Your task to perform on an android device: Open Yahoo.com Image 0: 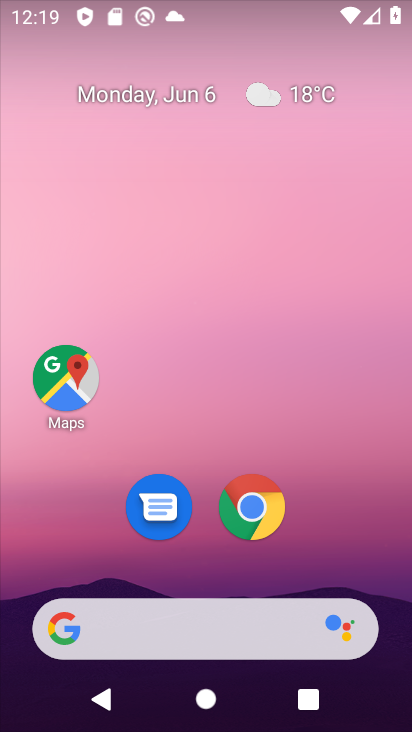
Step 0: click (245, 498)
Your task to perform on an android device: Open Yahoo.com Image 1: 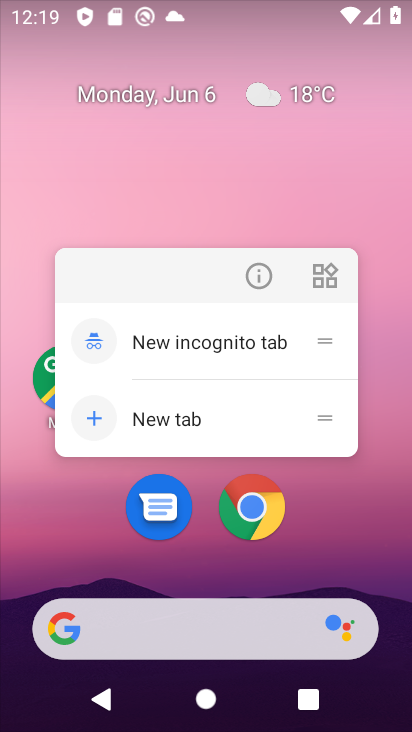
Step 1: click (258, 505)
Your task to perform on an android device: Open Yahoo.com Image 2: 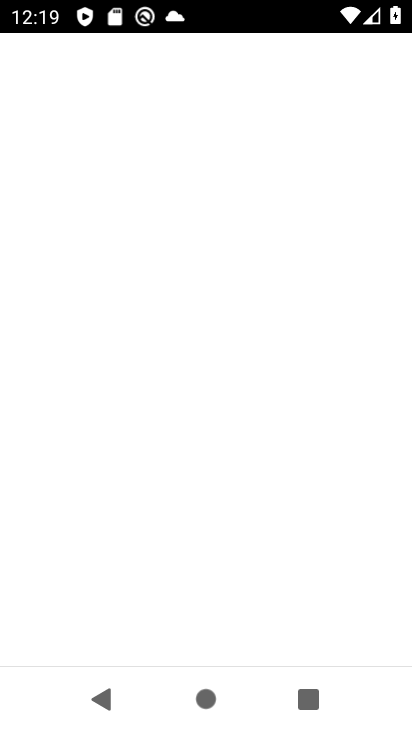
Step 2: click (258, 505)
Your task to perform on an android device: Open Yahoo.com Image 3: 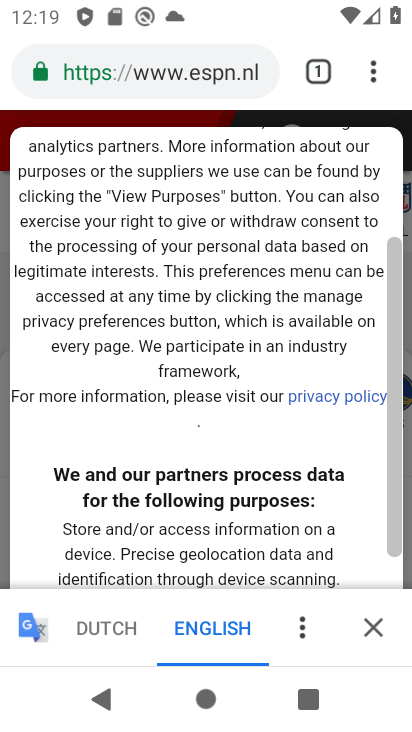
Step 3: click (208, 65)
Your task to perform on an android device: Open Yahoo.com Image 4: 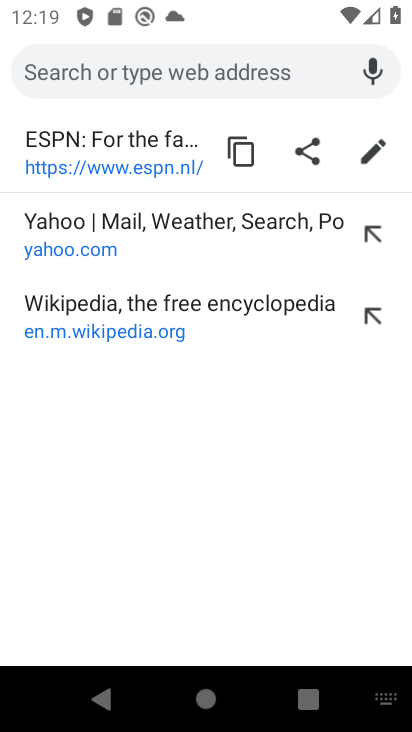
Step 4: type "yahoo.com"
Your task to perform on an android device: Open Yahoo.com Image 5: 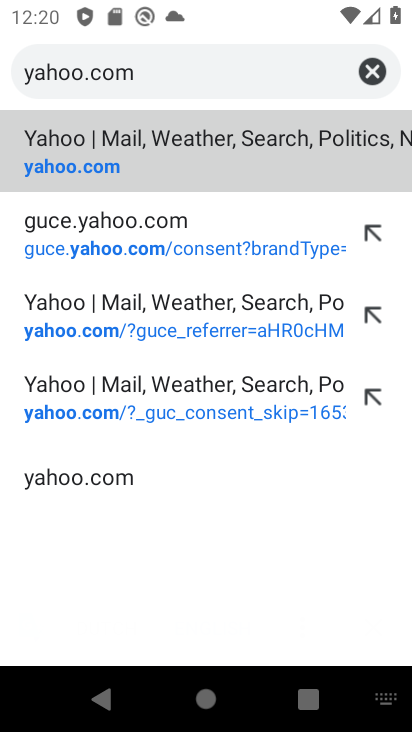
Step 5: click (111, 165)
Your task to perform on an android device: Open Yahoo.com Image 6: 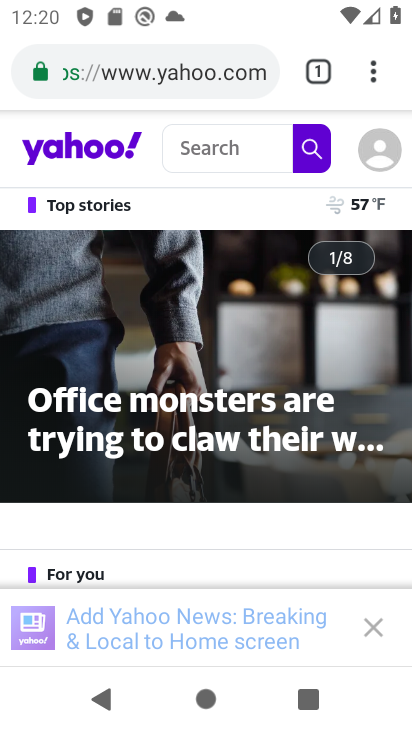
Step 6: task complete